Your task to perform on an android device: uninstall "Etsy: Buy & Sell Unique Items" Image 0: 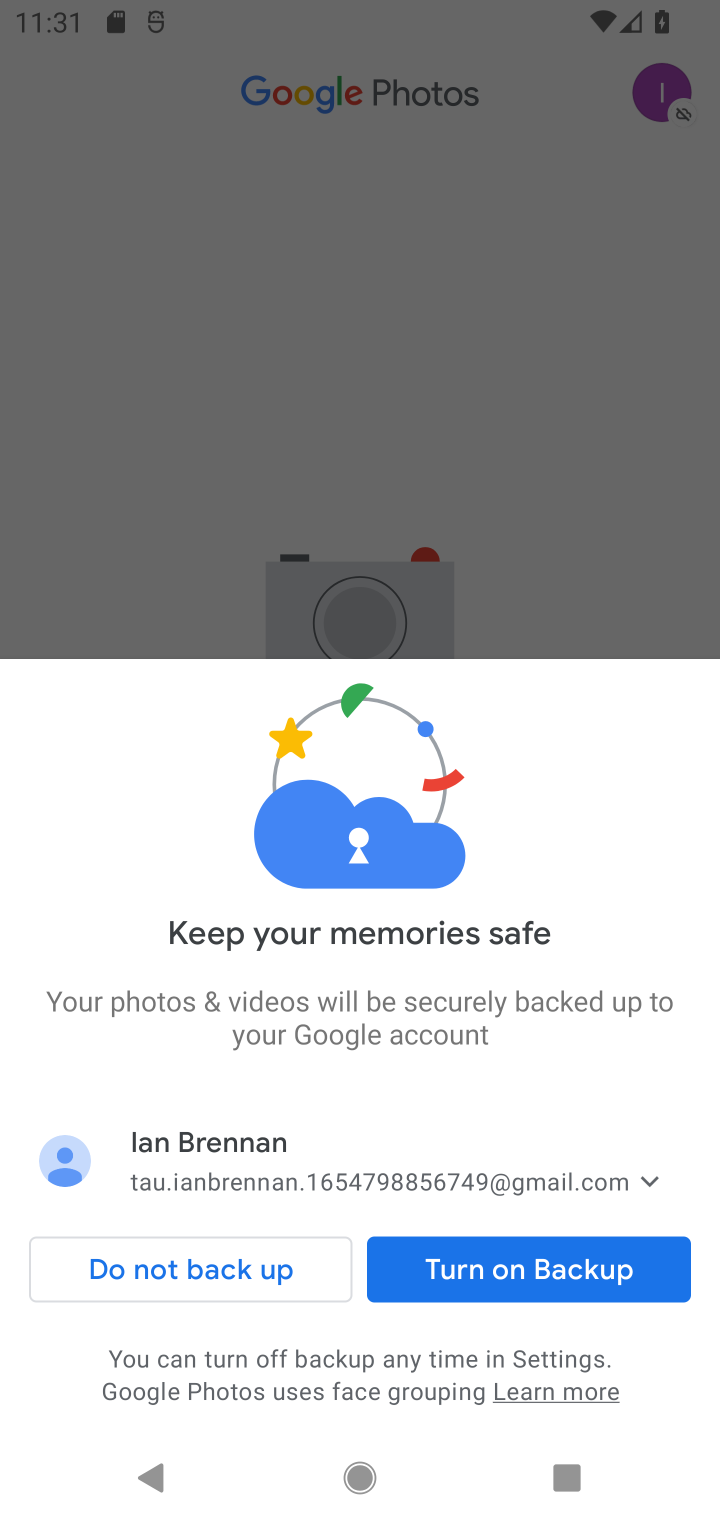
Step 0: press home button
Your task to perform on an android device: uninstall "Etsy: Buy & Sell Unique Items" Image 1: 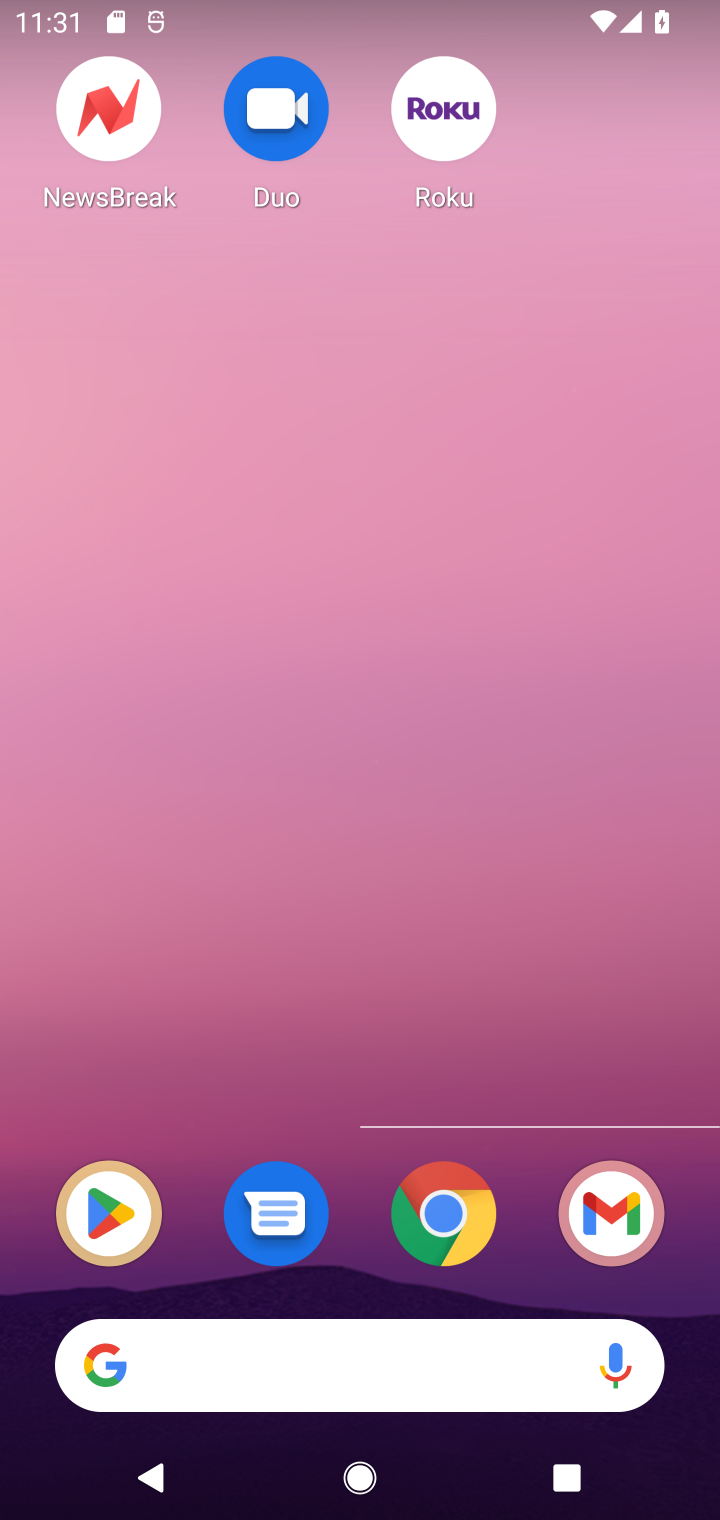
Step 1: press home button
Your task to perform on an android device: uninstall "Etsy: Buy & Sell Unique Items" Image 2: 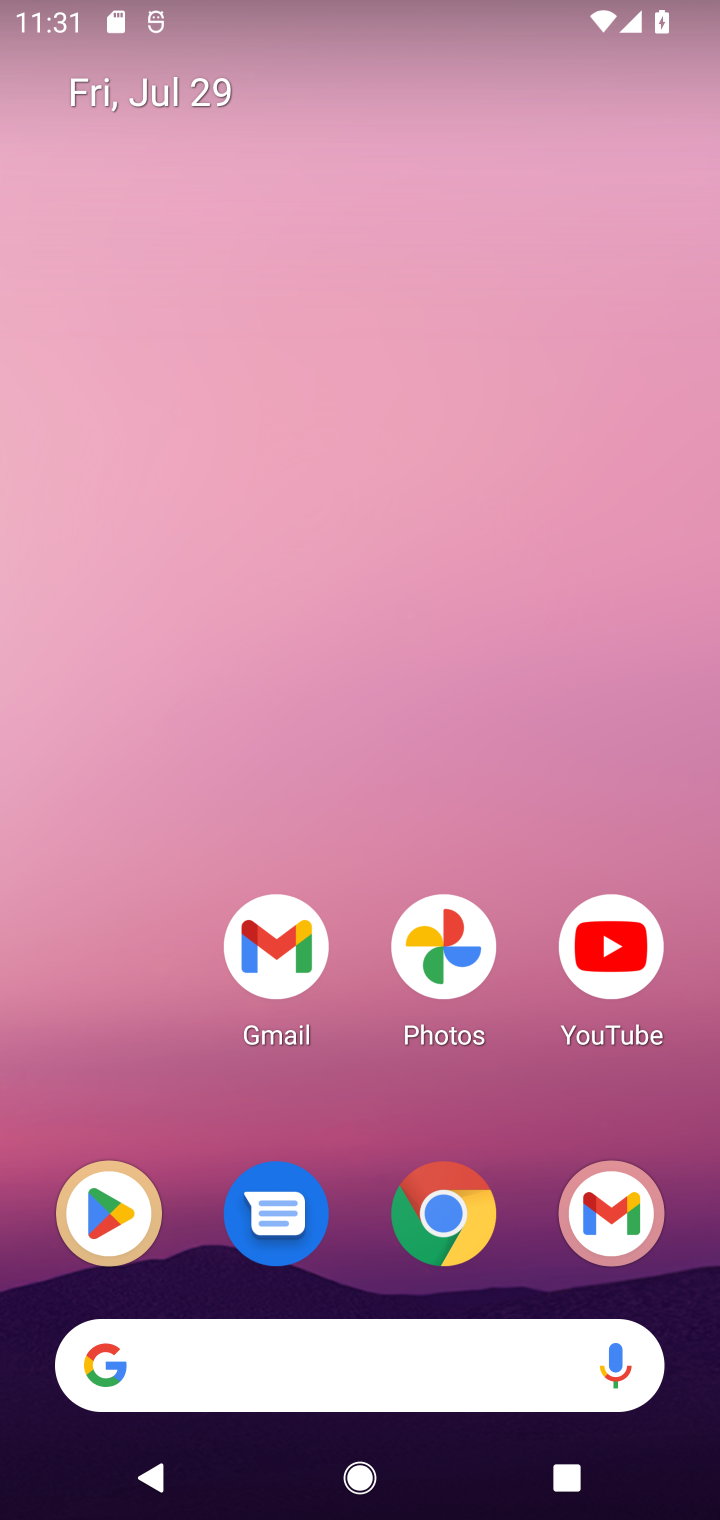
Step 2: drag from (416, 1076) to (348, 228)
Your task to perform on an android device: uninstall "Etsy: Buy & Sell Unique Items" Image 3: 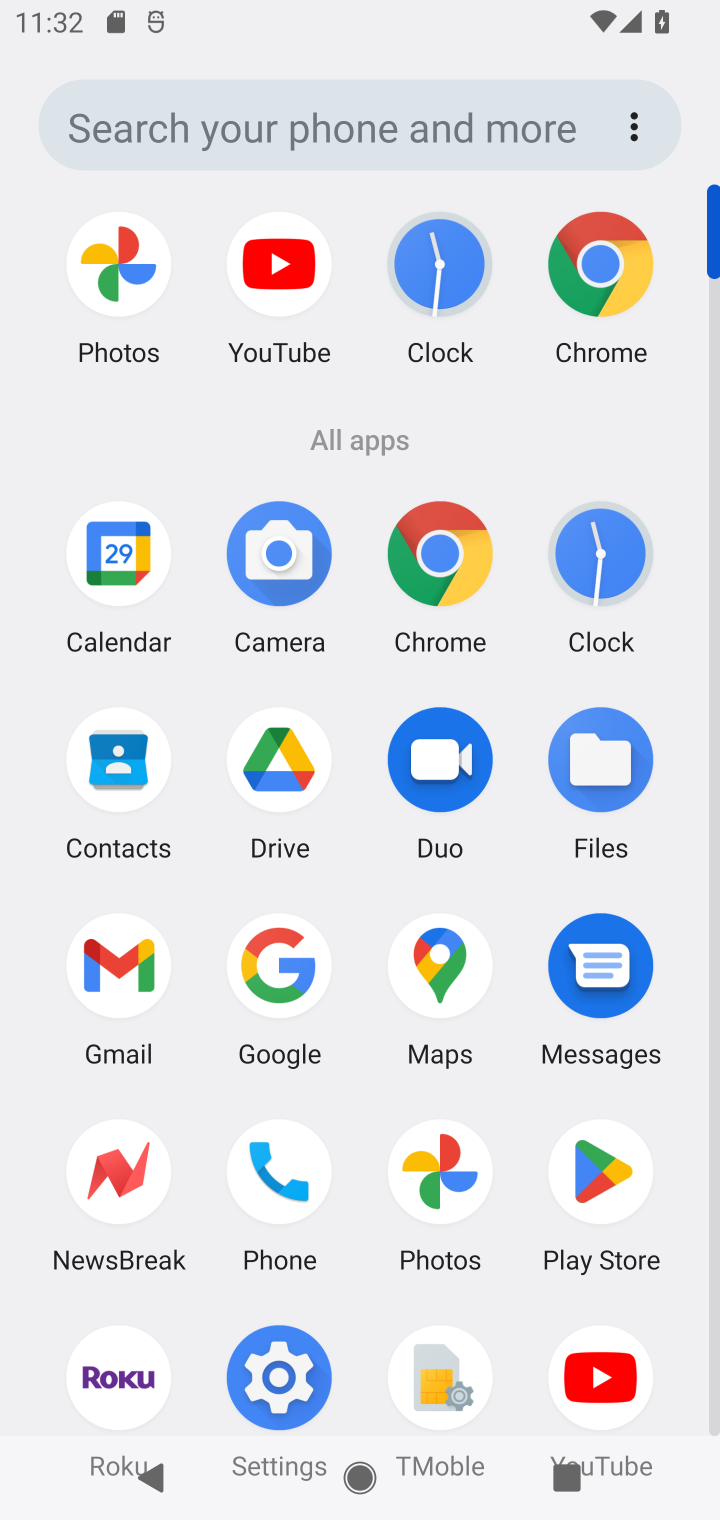
Step 3: click (614, 1171)
Your task to perform on an android device: uninstall "Etsy: Buy & Sell Unique Items" Image 4: 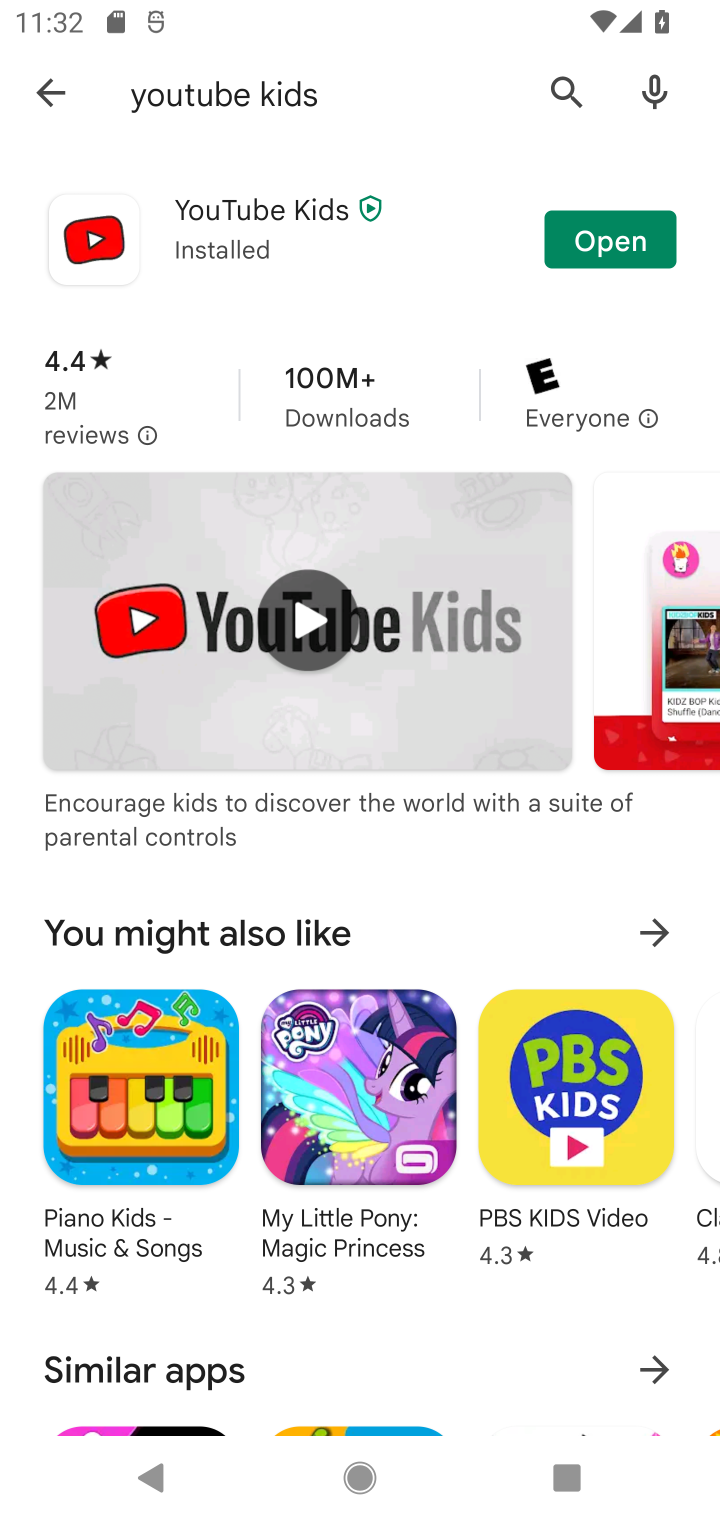
Step 4: click (558, 87)
Your task to perform on an android device: uninstall "Etsy: Buy & Sell Unique Items" Image 5: 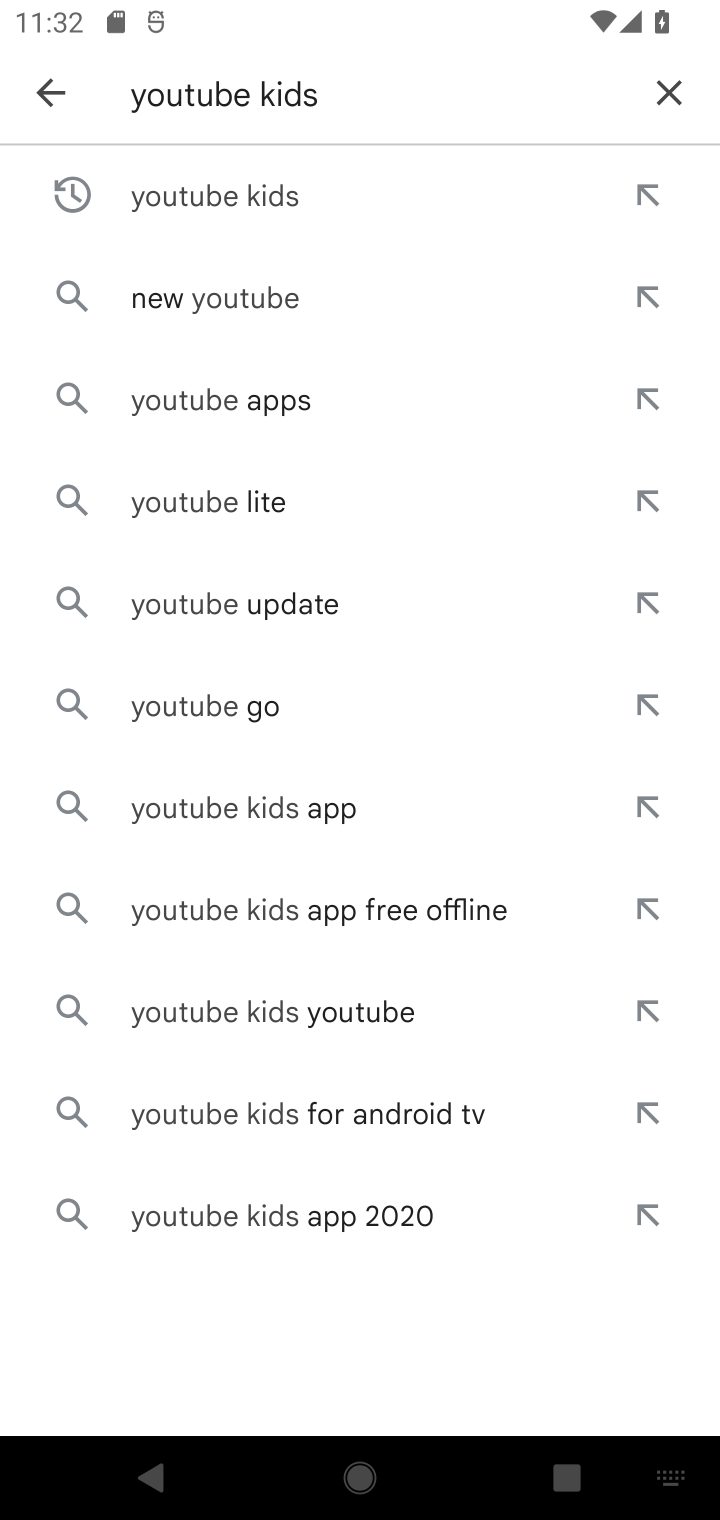
Step 5: click (663, 90)
Your task to perform on an android device: uninstall "Etsy: Buy & Sell Unique Items" Image 6: 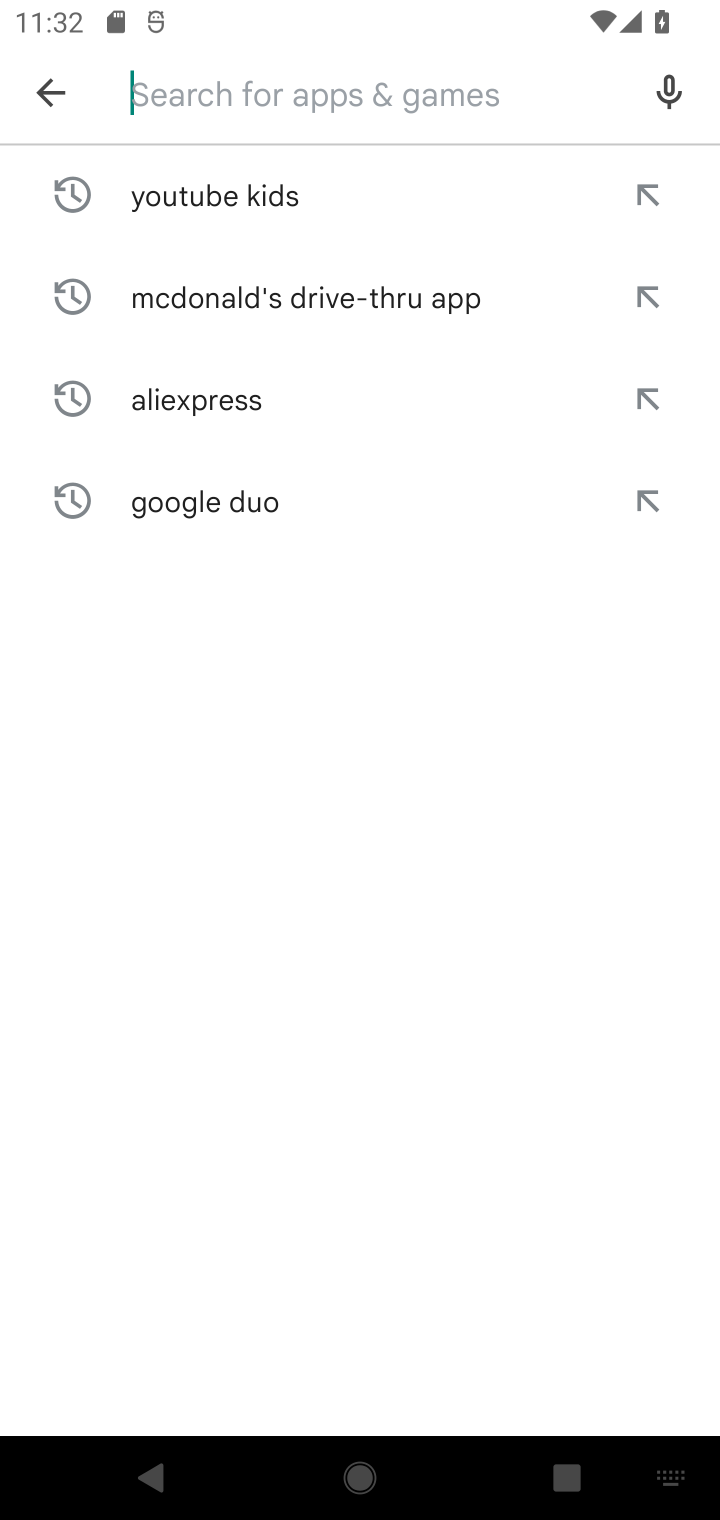
Step 6: type "Etsy: Buy & Sell Unique Items"
Your task to perform on an android device: uninstall "Etsy: Buy & Sell Unique Items" Image 7: 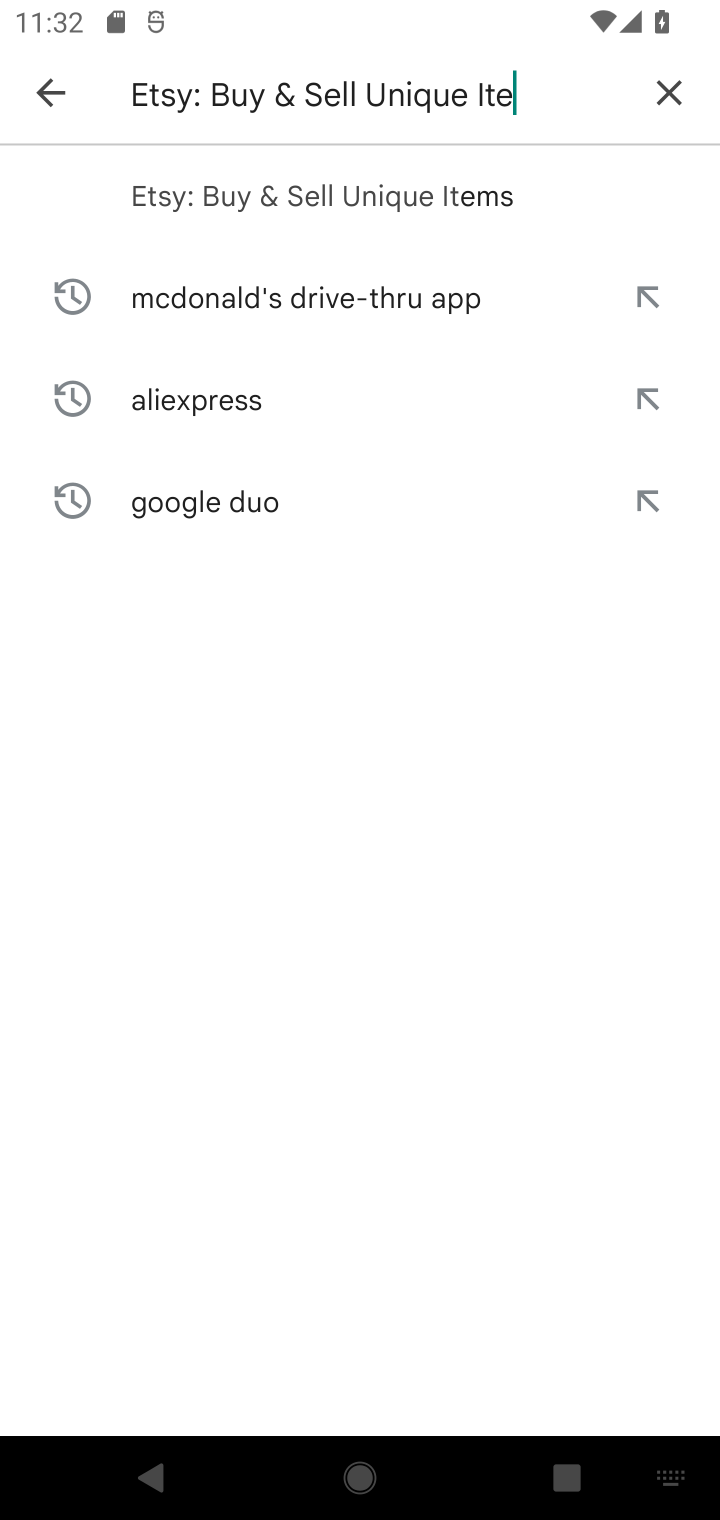
Step 7: type ""
Your task to perform on an android device: uninstall "Etsy: Buy & Sell Unique Items" Image 8: 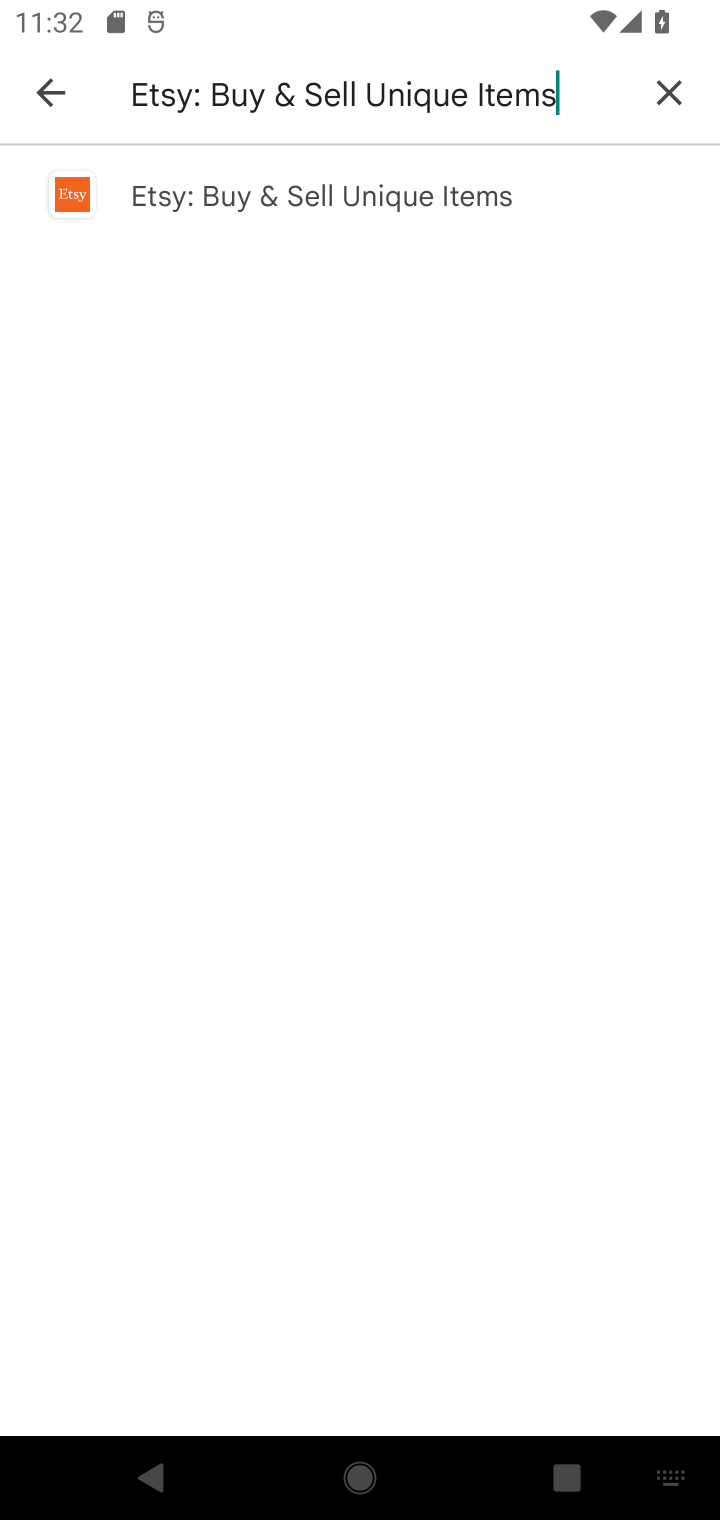
Step 8: click (222, 201)
Your task to perform on an android device: uninstall "Etsy: Buy & Sell Unique Items" Image 9: 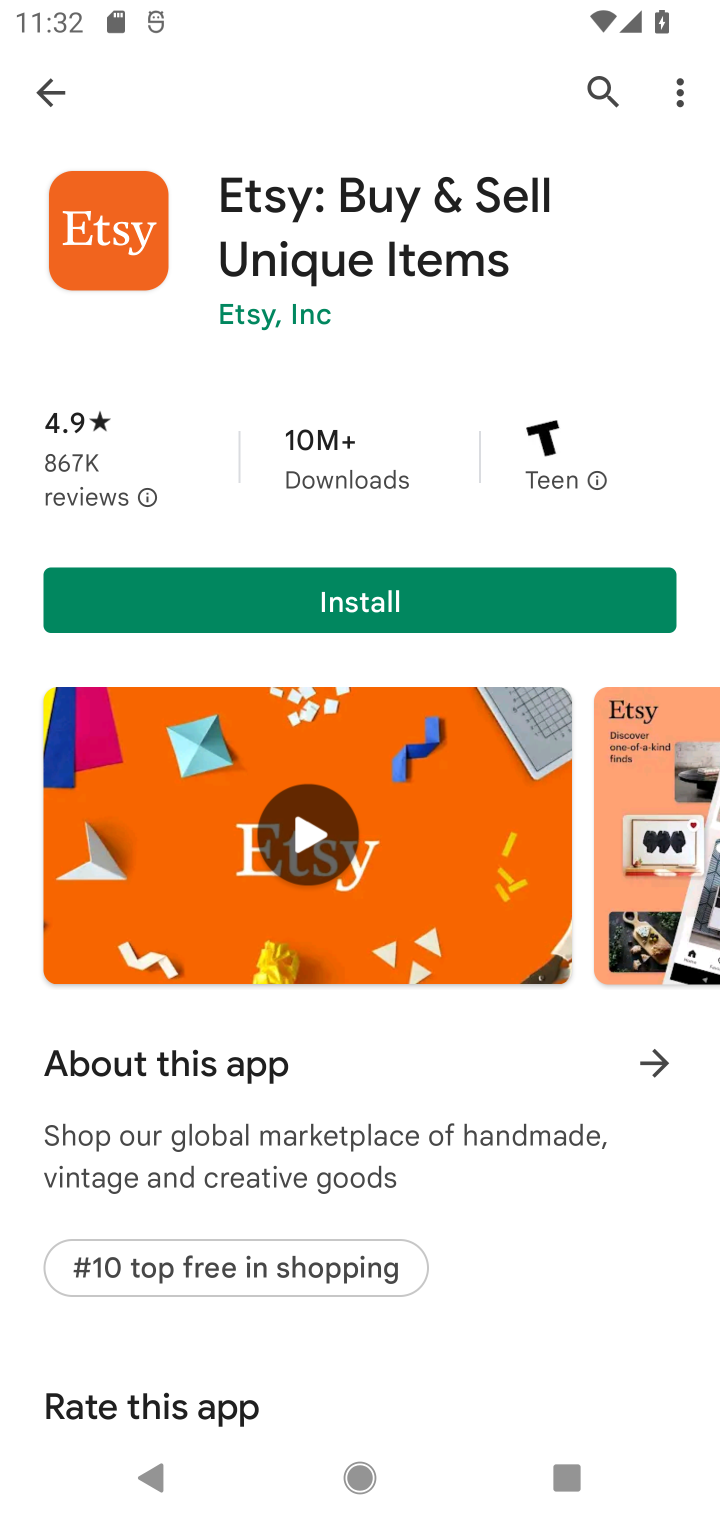
Step 9: task complete